Your task to perform on an android device: Open calendar and show me the third week of next month Image 0: 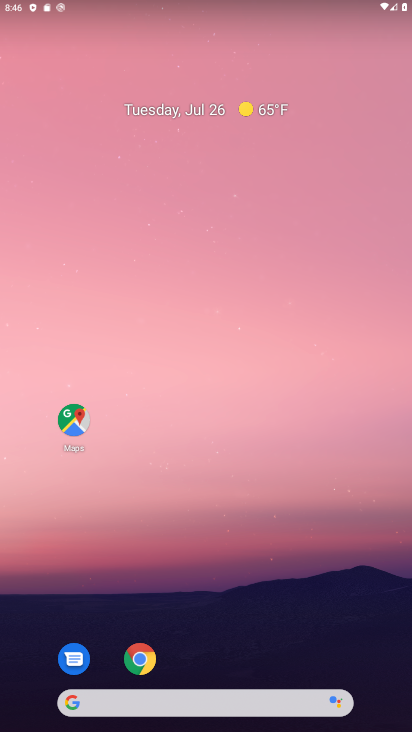
Step 0: drag from (182, 661) to (182, 85)
Your task to perform on an android device: Open calendar and show me the third week of next month Image 1: 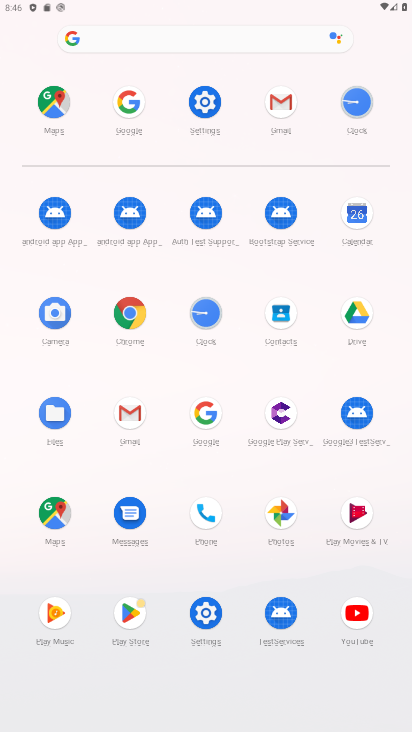
Step 1: click (354, 233)
Your task to perform on an android device: Open calendar and show me the third week of next month Image 2: 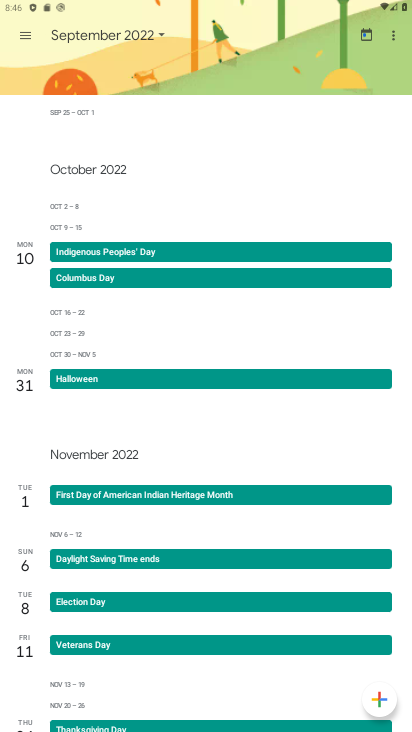
Step 2: click (73, 43)
Your task to perform on an android device: Open calendar and show me the third week of next month Image 3: 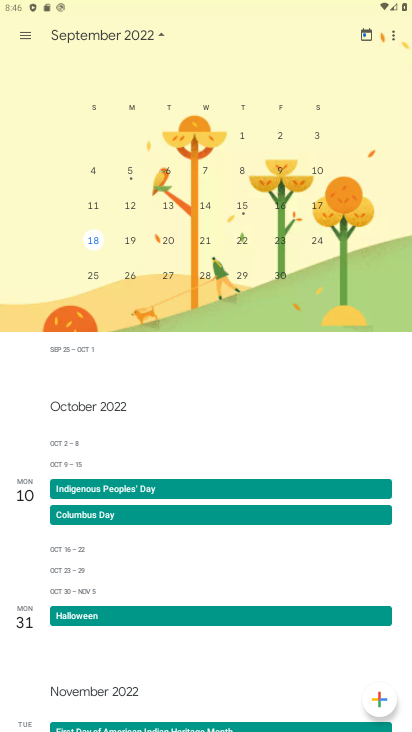
Step 3: drag from (162, 170) to (326, 156)
Your task to perform on an android device: Open calendar and show me the third week of next month Image 4: 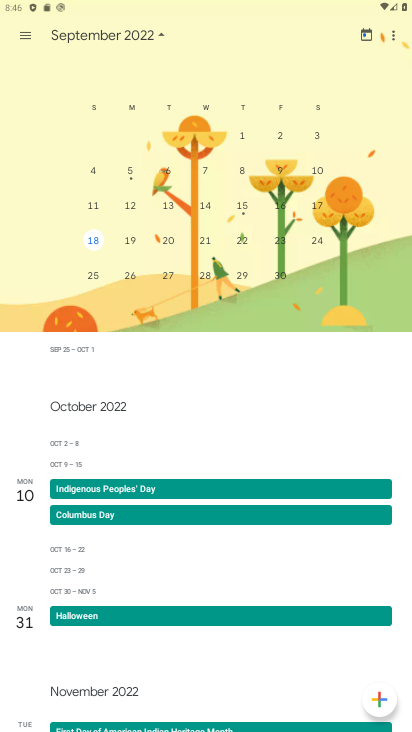
Step 4: drag from (123, 188) to (388, 159)
Your task to perform on an android device: Open calendar and show me the third week of next month Image 5: 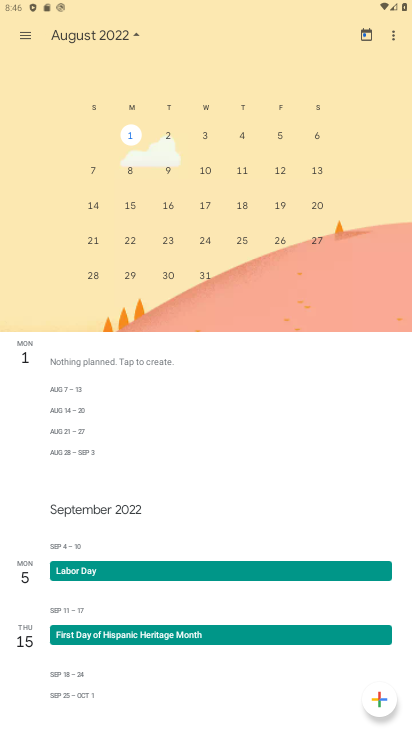
Step 5: click (90, 204)
Your task to perform on an android device: Open calendar and show me the third week of next month Image 6: 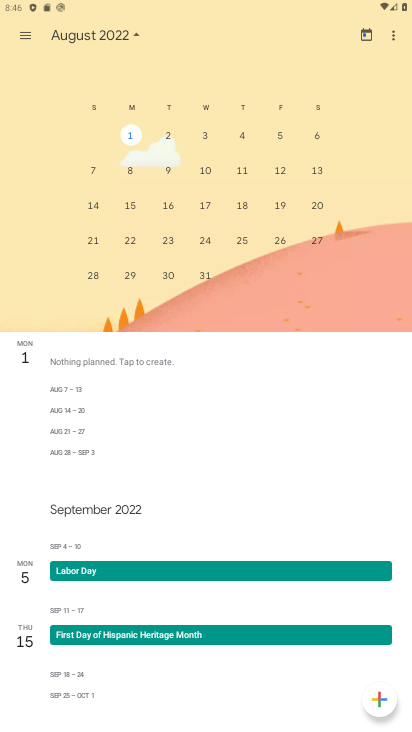
Step 6: click (90, 204)
Your task to perform on an android device: Open calendar and show me the third week of next month Image 7: 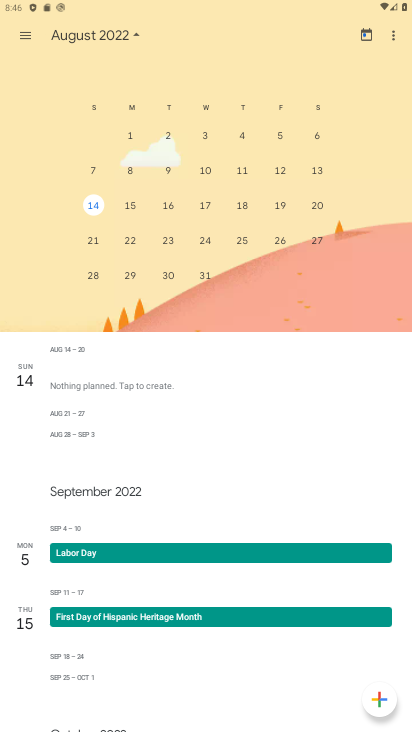
Step 7: click (29, 38)
Your task to perform on an android device: Open calendar and show me the third week of next month Image 8: 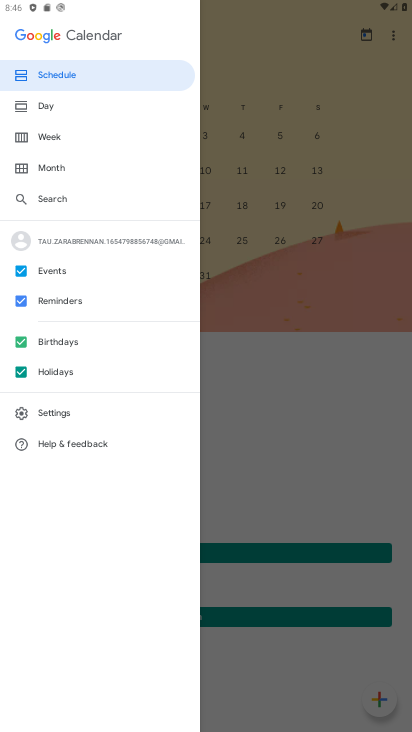
Step 8: click (61, 132)
Your task to perform on an android device: Open calendar and show me the third week of next month Image 9: 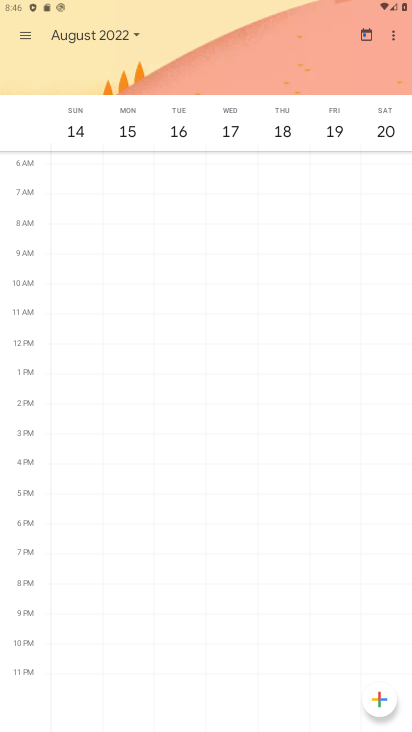
Step 9: task complete